Your task to perform on an android device: Clear the cart on bestbuy.com. Add dell alienware to the cart on bestbuy.com Image 0: 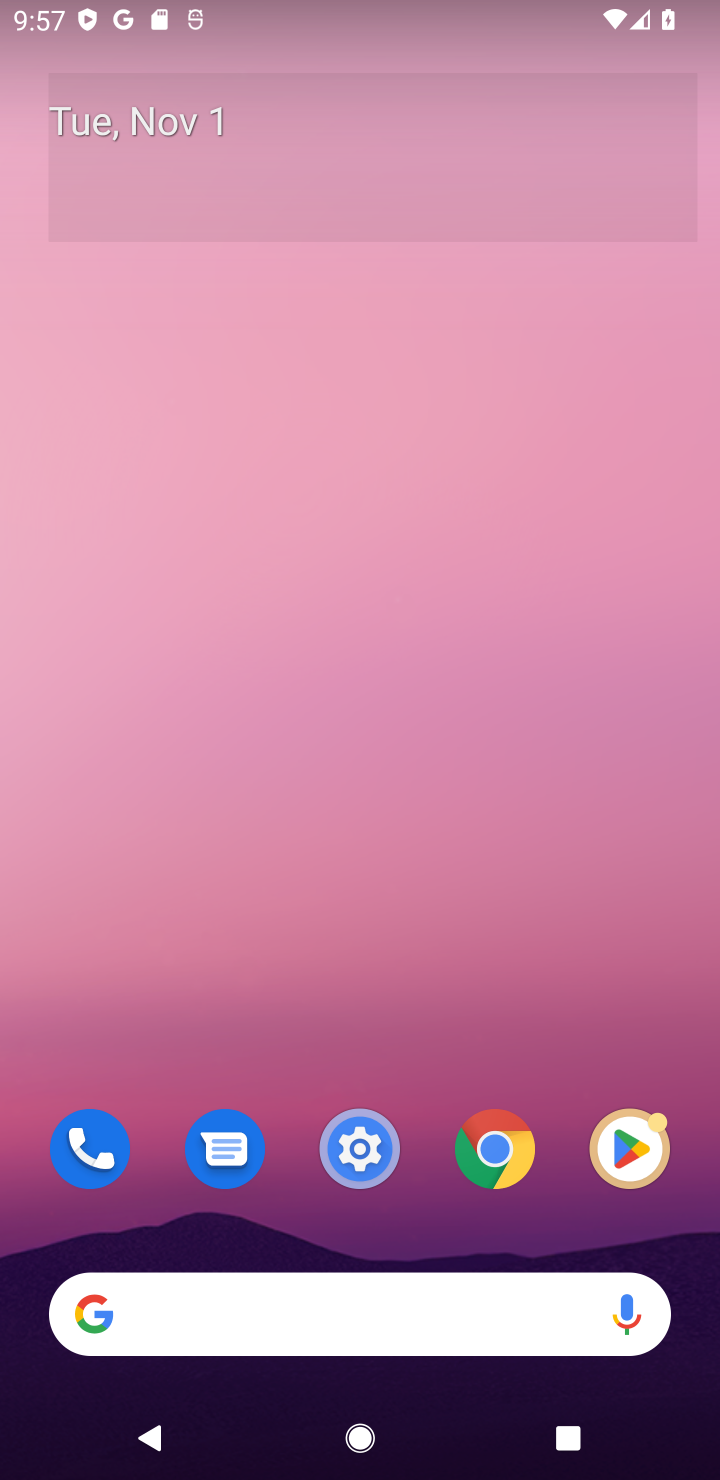
Step 0: press home button
Your task to perform on an android device: Clear the cart on bestbuy.com. Add dell alienware to the cart on bestbuy.com Image 1: 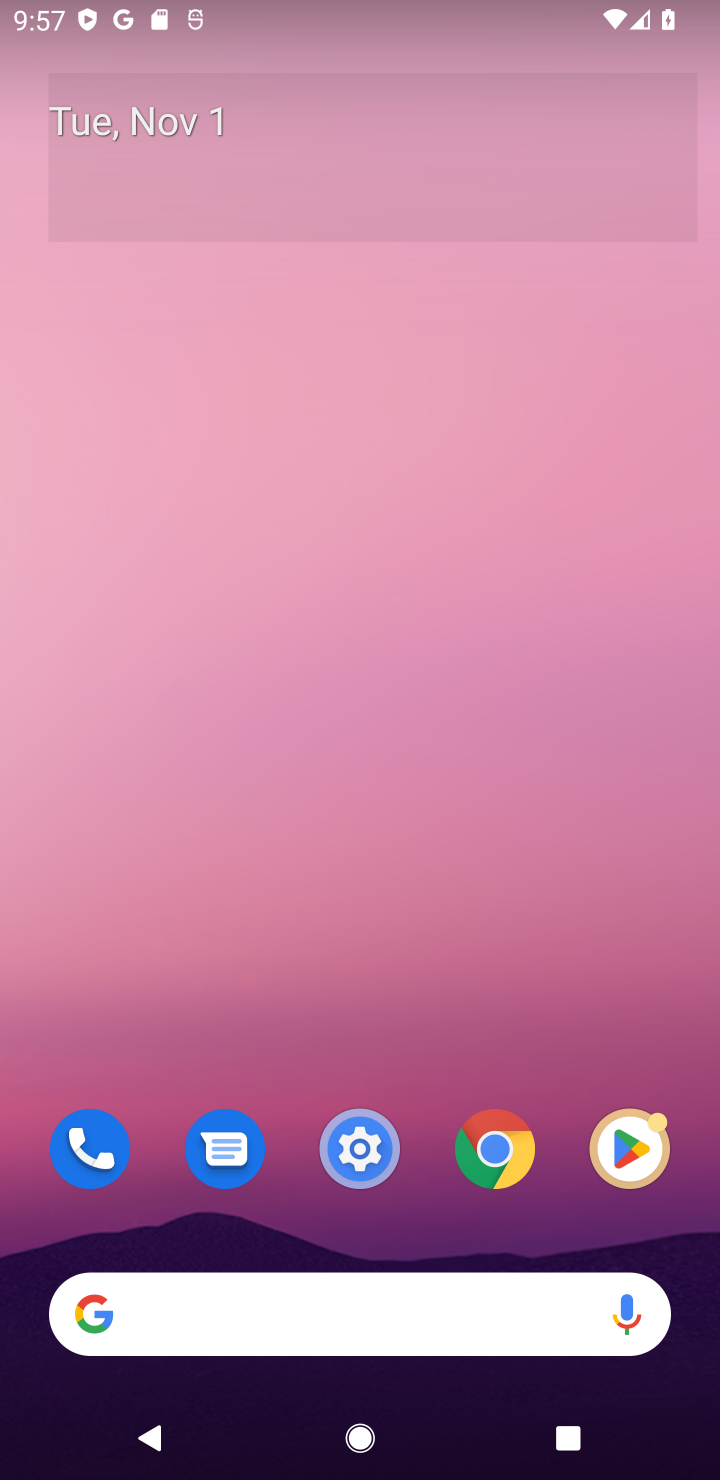
Step 1: click (147, 1298)
Your task to perform on an android device: Clear the cart on bestbuy.com. Add dell alienware to the cart on bestbuy.com Image 2: 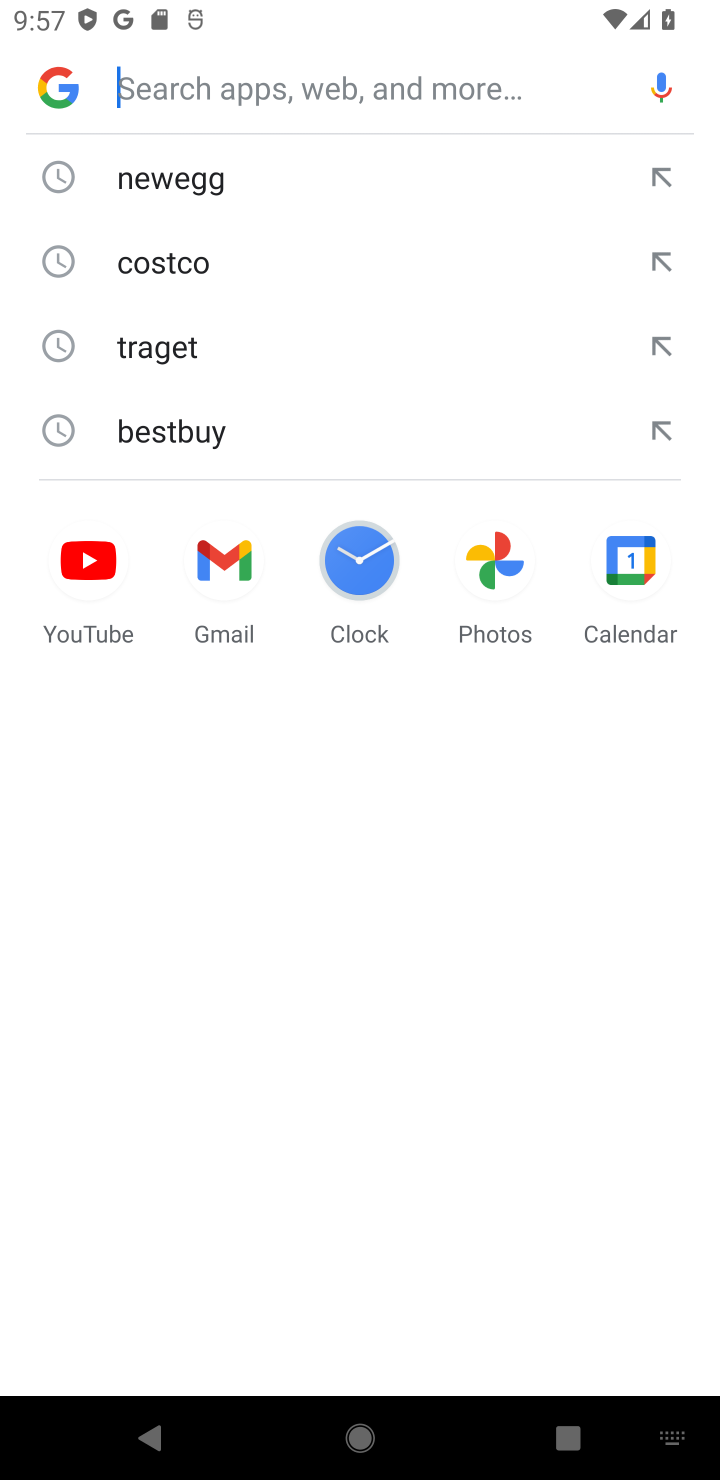
Step 2: press enter
Your task to perform on an android device: Clear the cart on bestbuy.com. Add dell alienware to the cart on bestbuy.com Image 3: 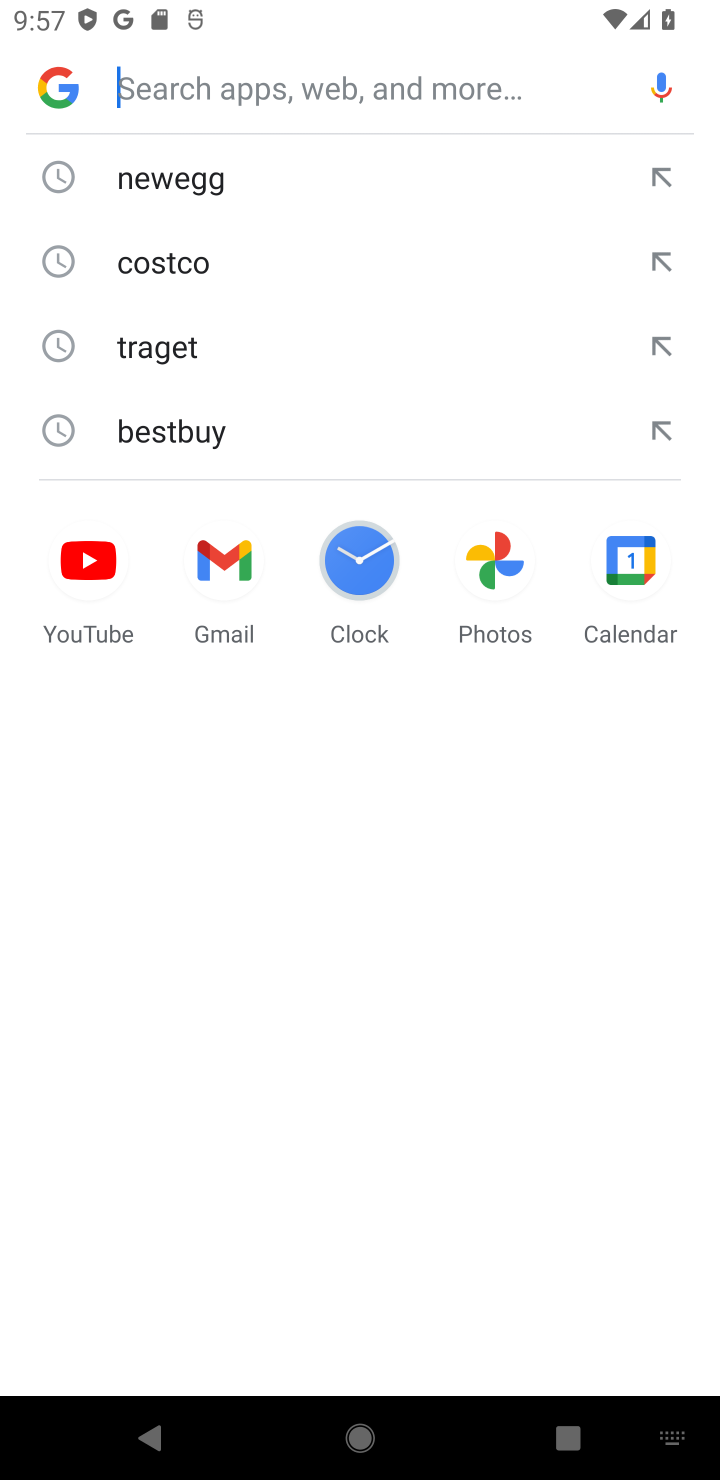
Step 3: type "bestbuy.com"
Your task to perform on an android device: Clear the cart on bestbuy.com. Add dell alienware to the cart on bestbuy.com Image 4: 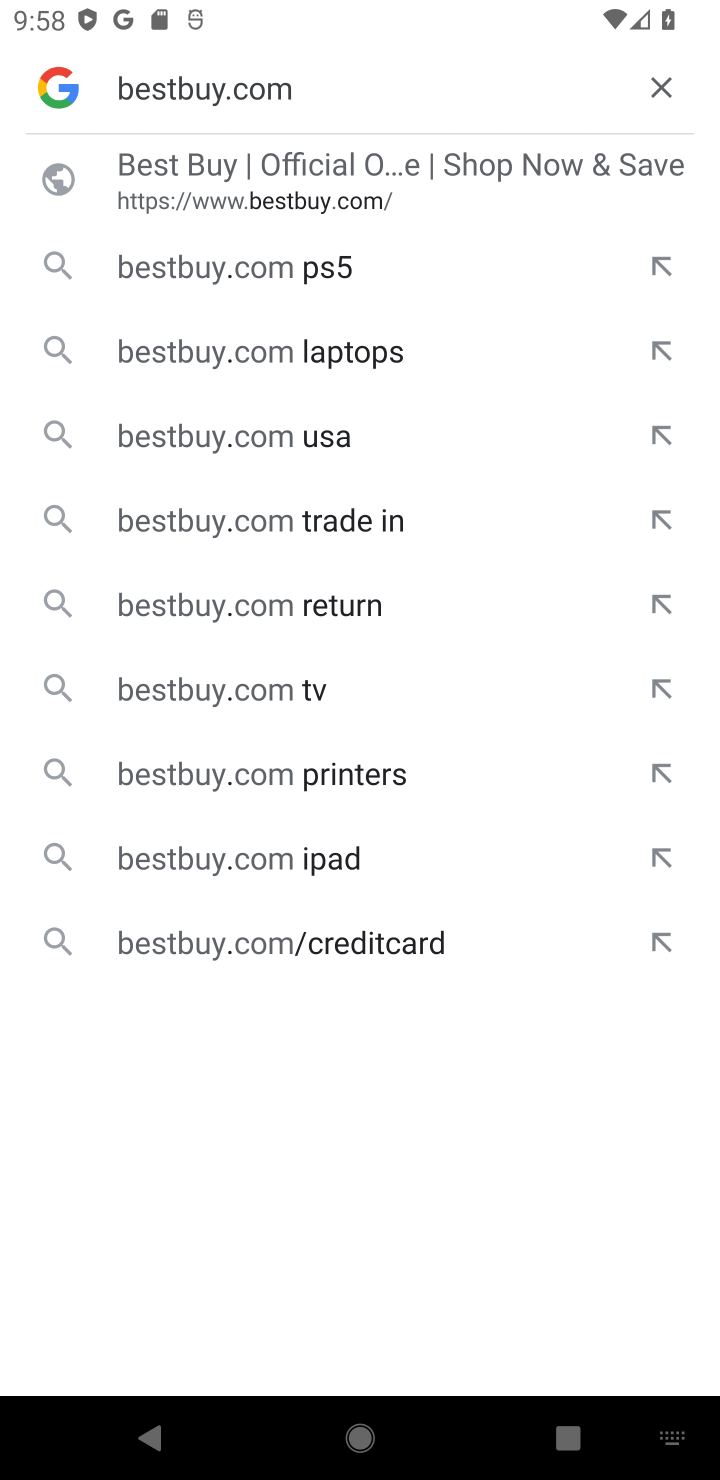
Step 4: press enter
Your task to perform on an android device: Clear the cart on bestbuy.com. Add dell alienware to the cart on bestbuy.com Image 5: 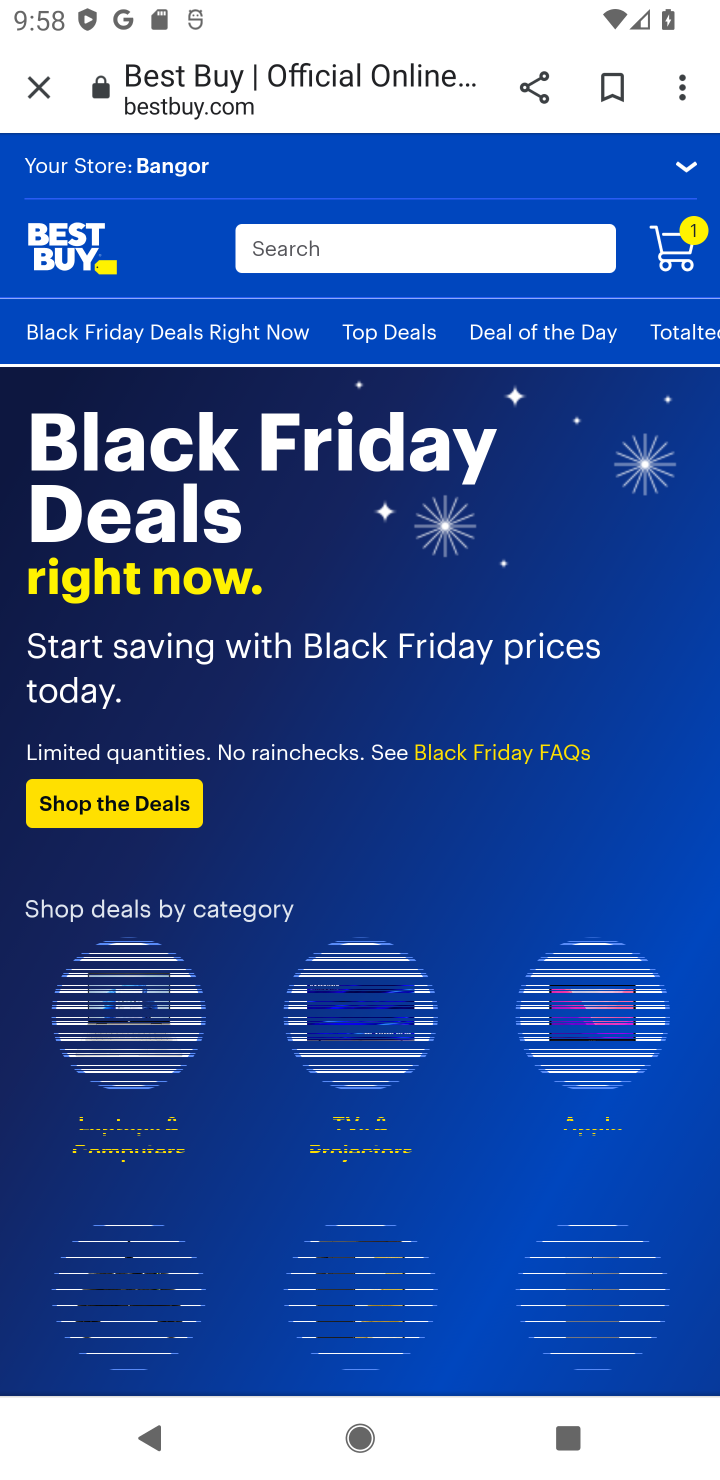
Step 5: click (689, 244)
Your task to perform on an android device: Clear the cart on bestbuy.com. Add dell alienware to the cart on bestbuy.com Image 6: 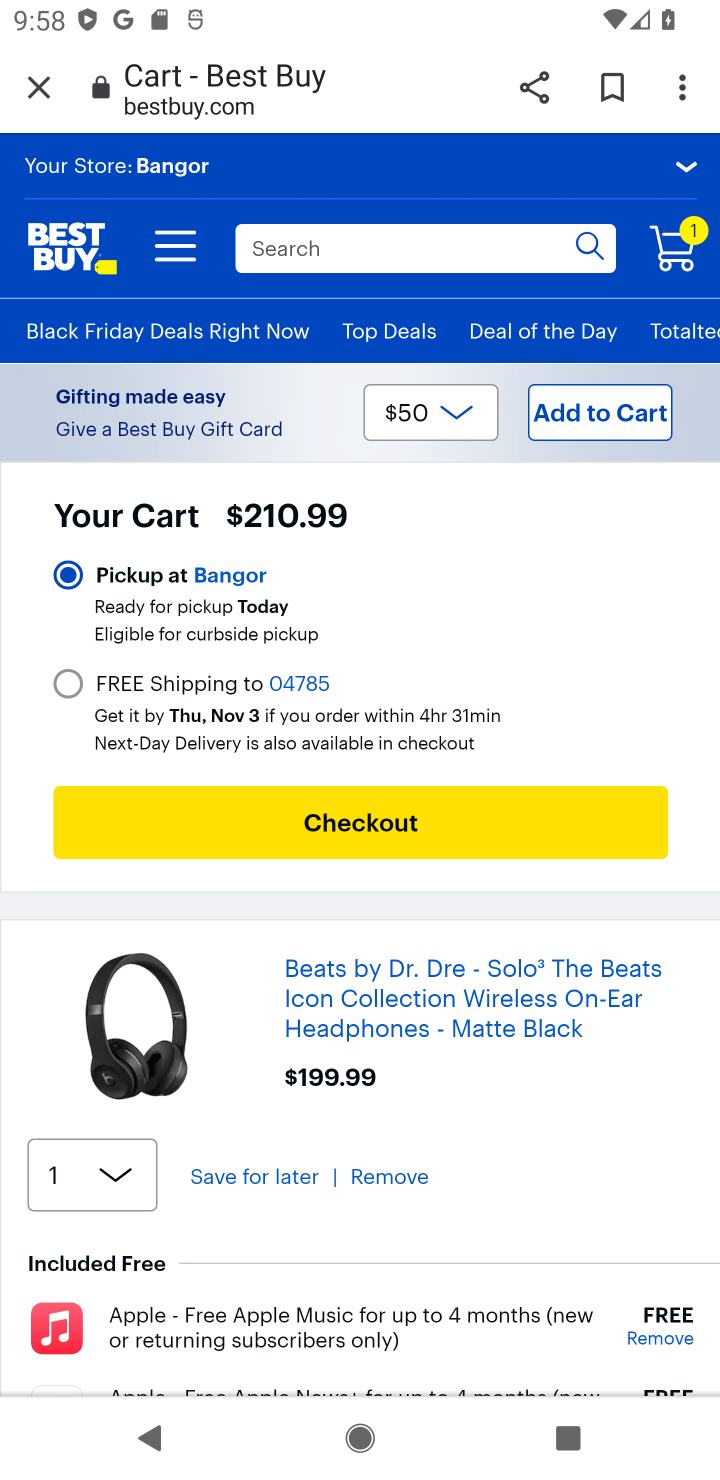
Step 6: click (383, 1172)
Your task to perform on an android device: Clear the cart on bestbuy.com. Add dell alienware to the cart on bestbuy.com Image 7: 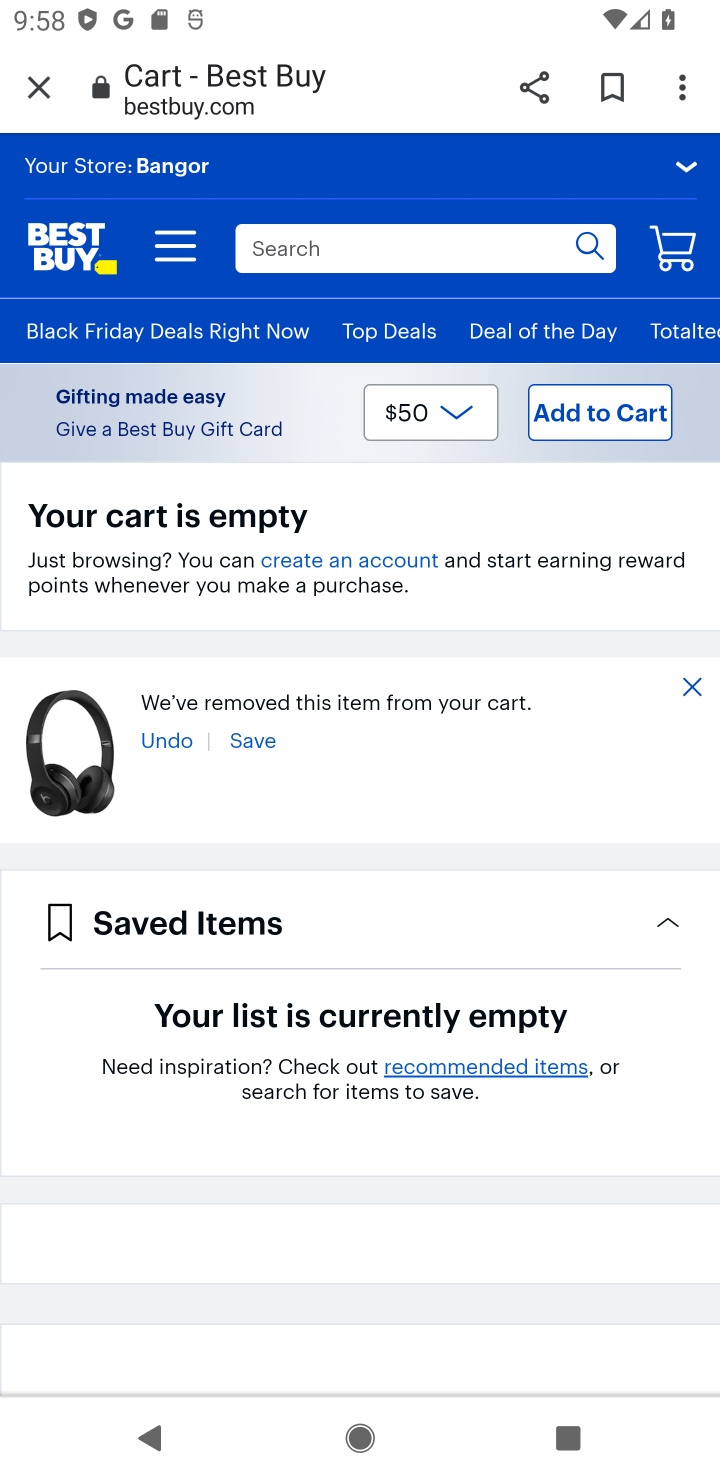
Step 7: click (279, 235)
Your task to perform on an android device: Clear the cart on bestbuy.com. Add dell alienware to the cart on bestbuy.com Image 8: 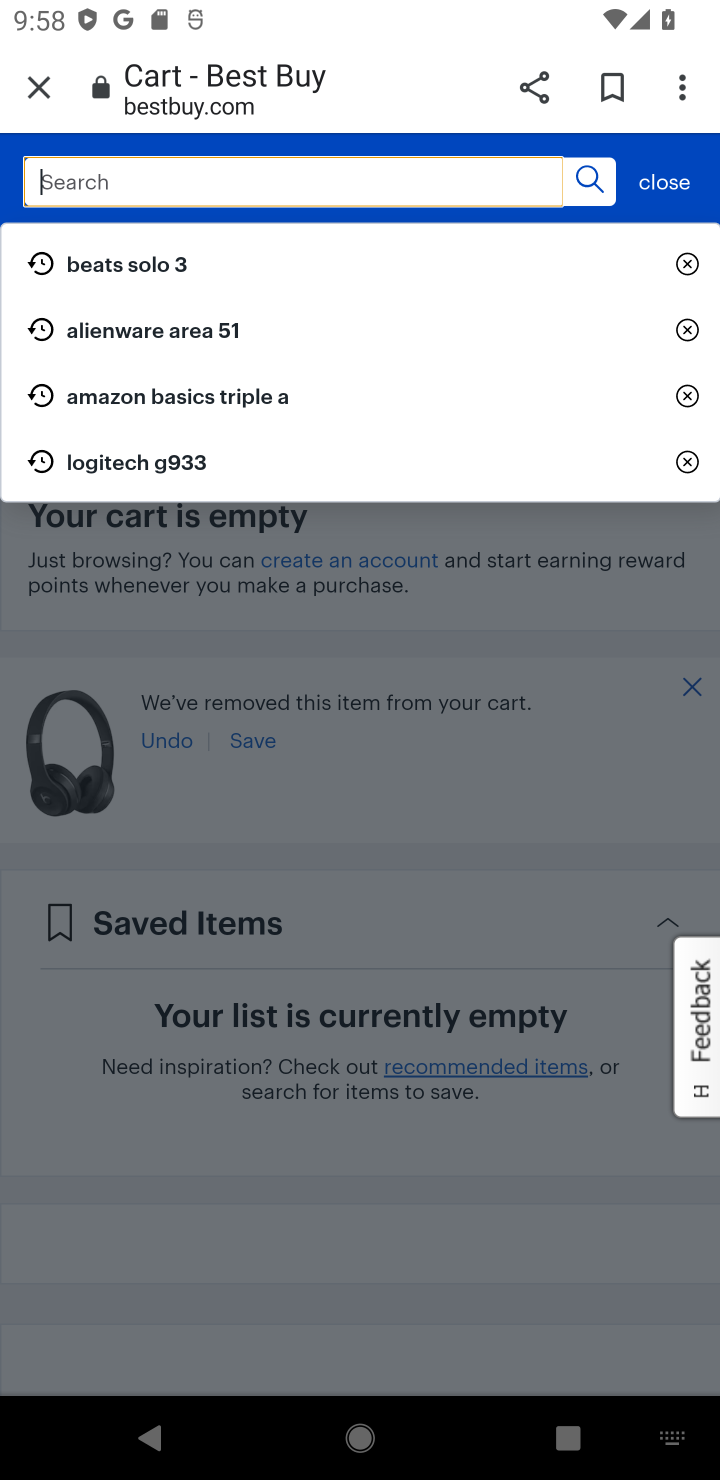
Step 8: type "dell alienware"
Your task to perform on an android device: Clear the cart on bestbuy.com. Add dell alienware to the cart on bestbuy.com Image 9: 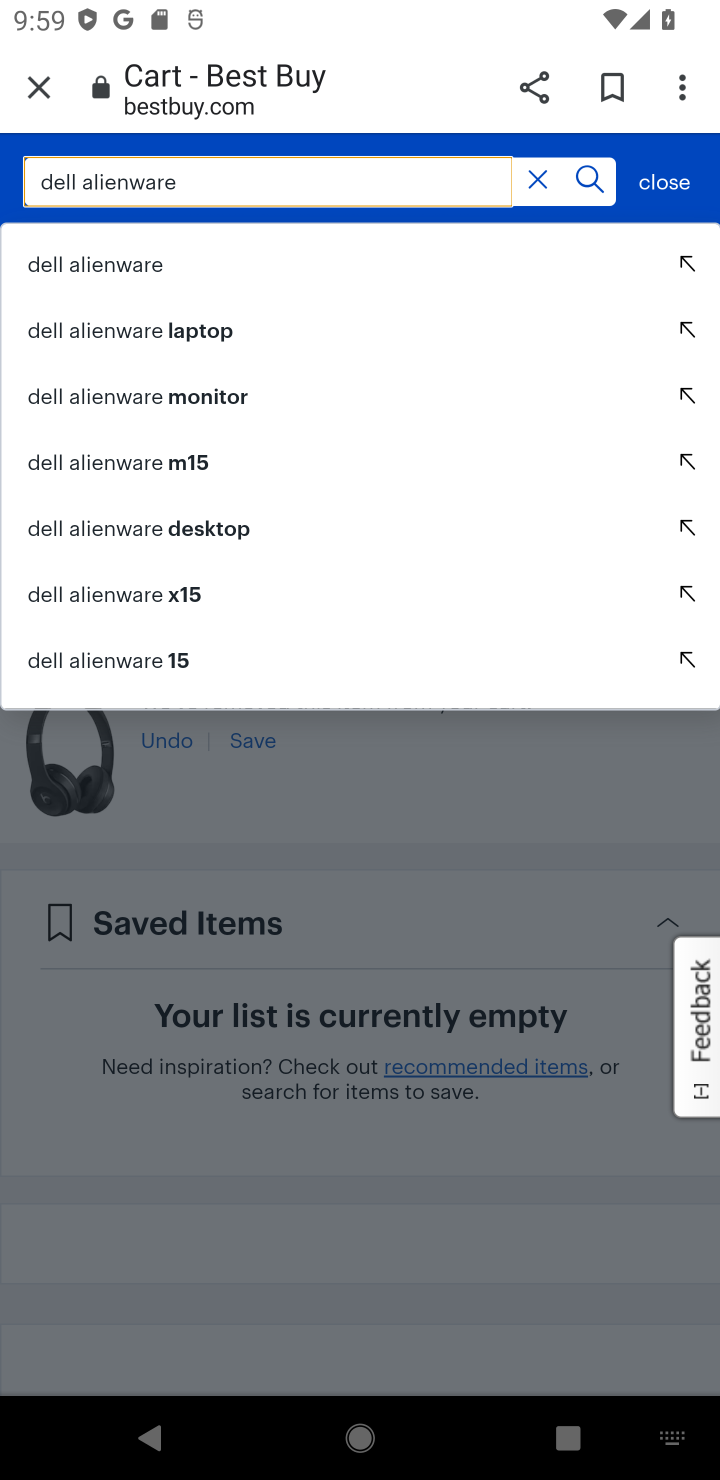
Step 9: press enter
Your task to perform on an android device: Clear the cart on bestbuy.com. Add dell alienware to the cart on bestbuy.com Image 10: 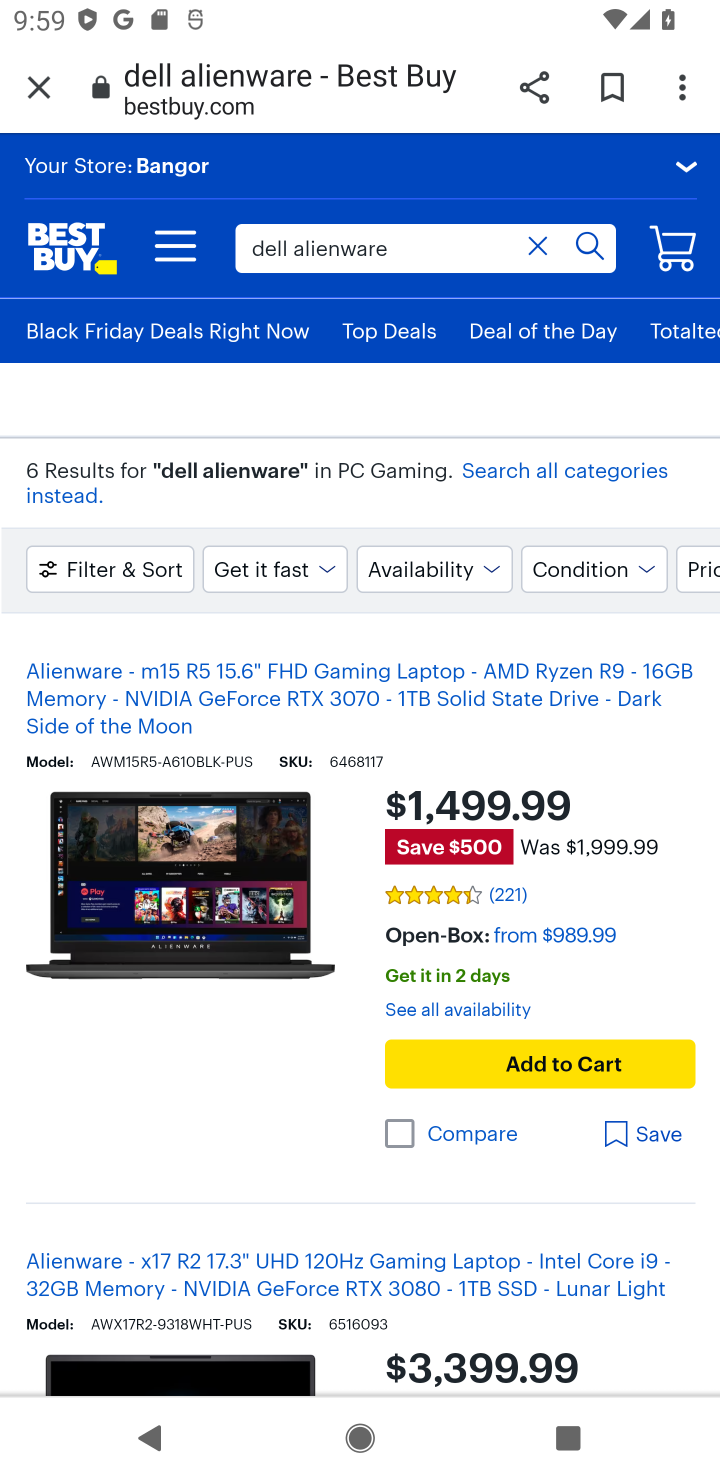
Step 10: drag from (473, 1205) to (477, 688)
Your task to perform on an android device: Clear the cart on bestbuy.com. Add dell alienware to the cart on bestbuy.com Image 11: 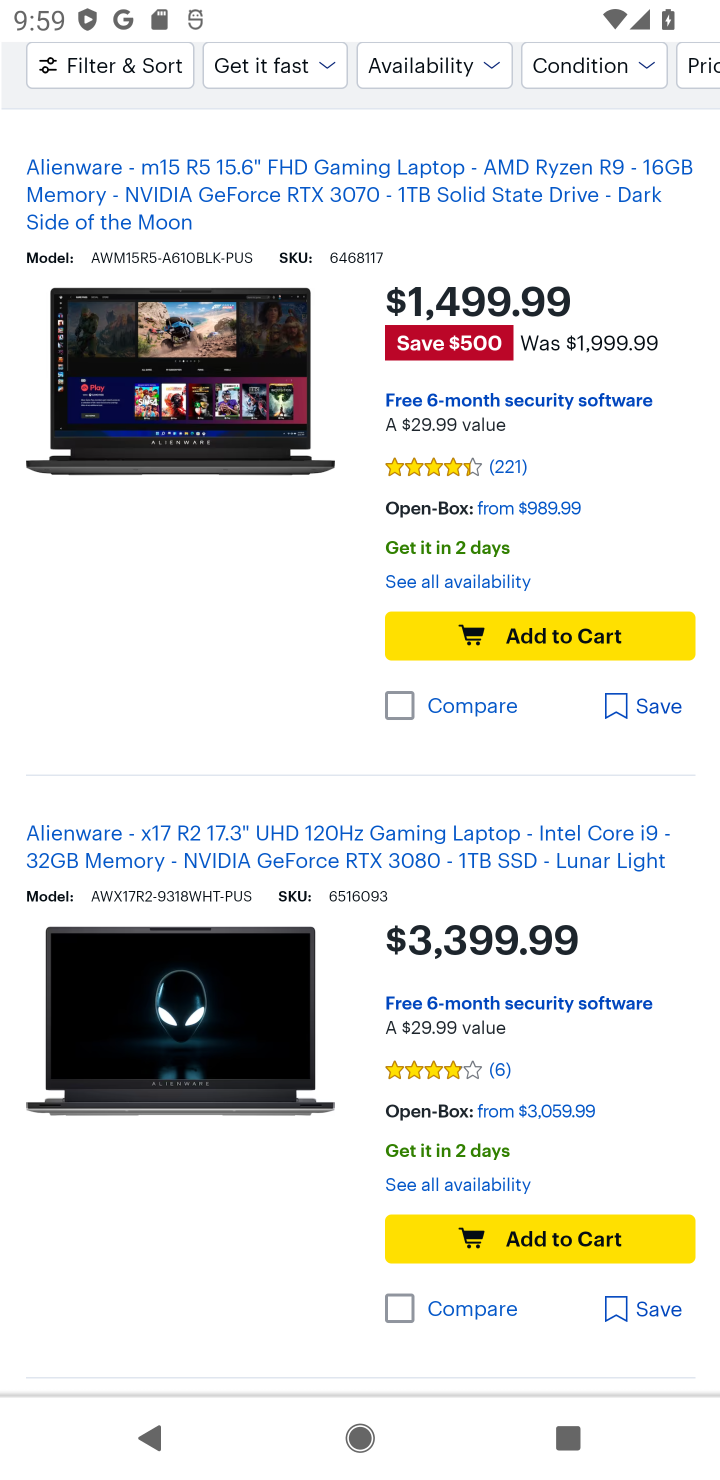
Step 11: click (574, 558)
Your task to perform on an android device: Clear the cart on bestbuy.com. Add dell alienware to the cart on bestbuy.com Image 12: 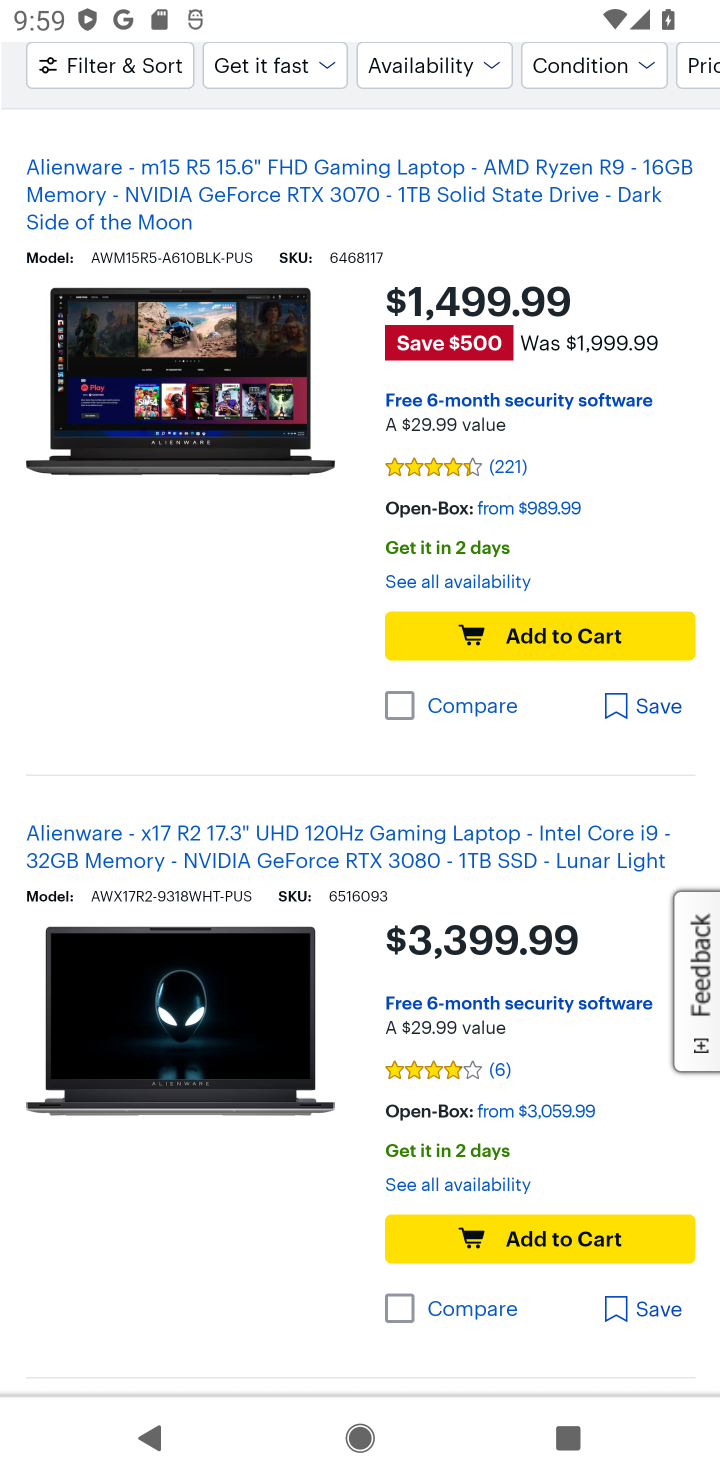
Step 12: click (559, 635)
Your task to perform on an android device: Clear the cart on bestbuy.com. Add dell alienware to the cart on bestbuy.com Image 13: 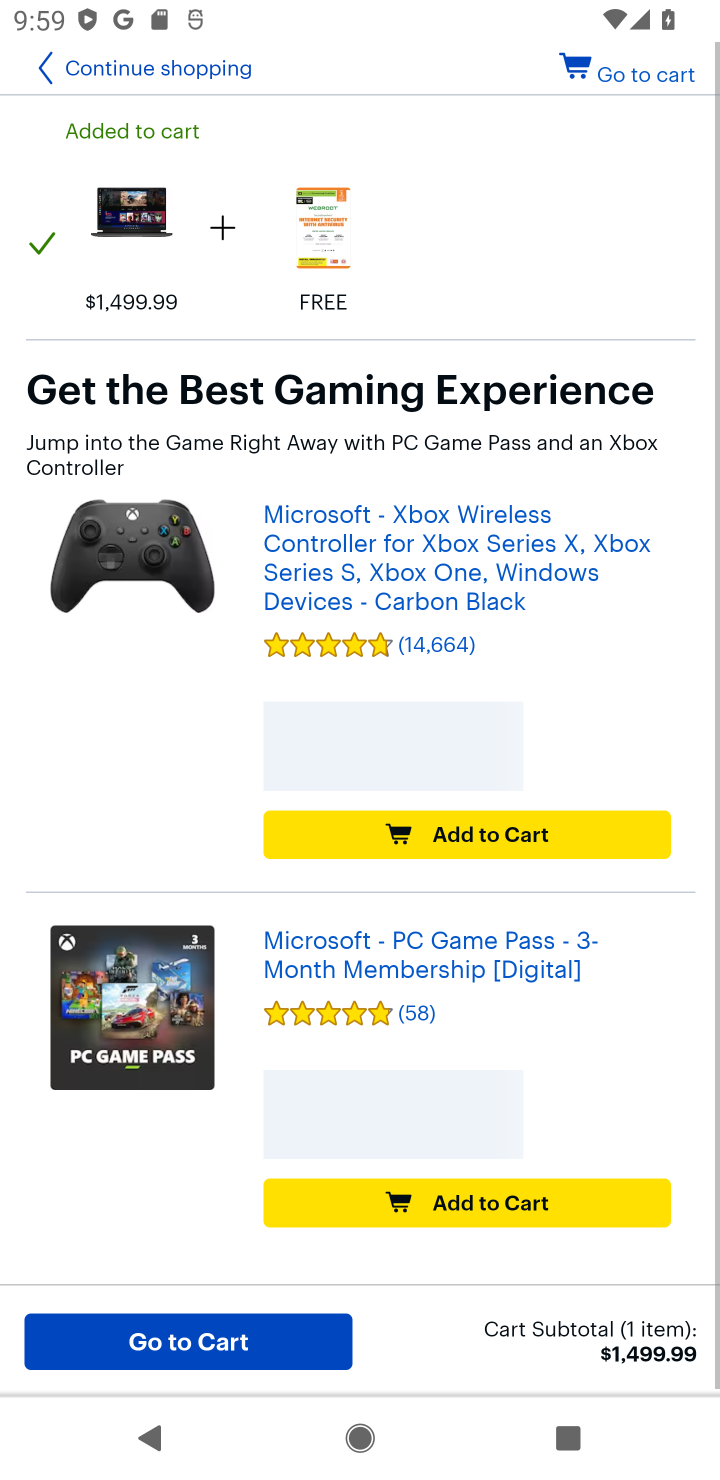
Step 13: task complete